Your task to perform on an android device: search for starred emails in the gmail app Image 0: 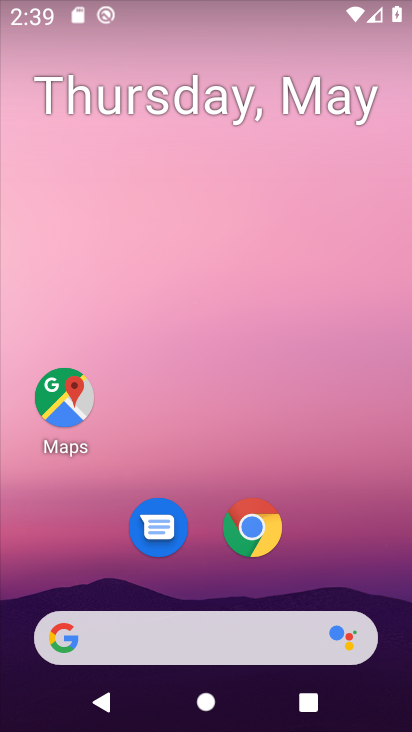
Step 0: drag from (337, 585) to (367, 110)
Your task to perform on an android device: search for starred emails in the gmail app Image 1: 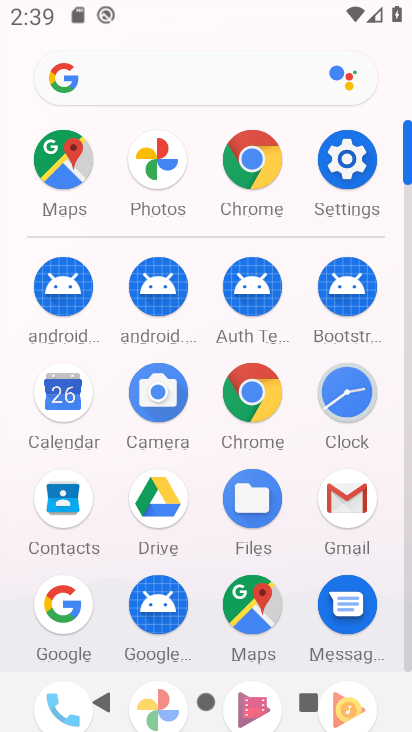
Step 1: click (346, 518)
Your task to perform on an android device: search for starred emails in the gmail app Image 2: 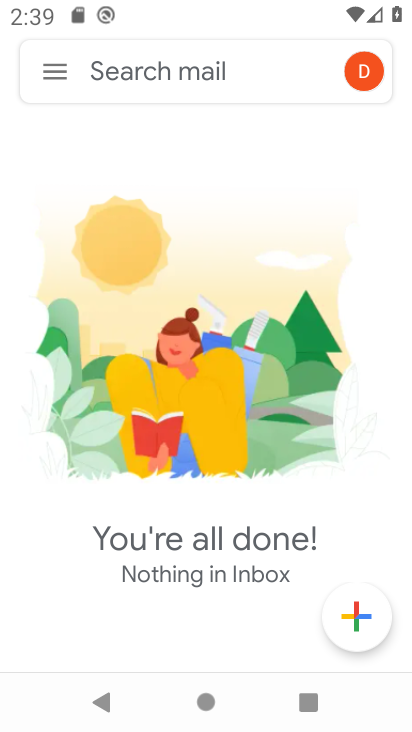
Step 2: click (38, 63)
Your task to perform on an android device: search for starred emails in the gmail app Image 3: 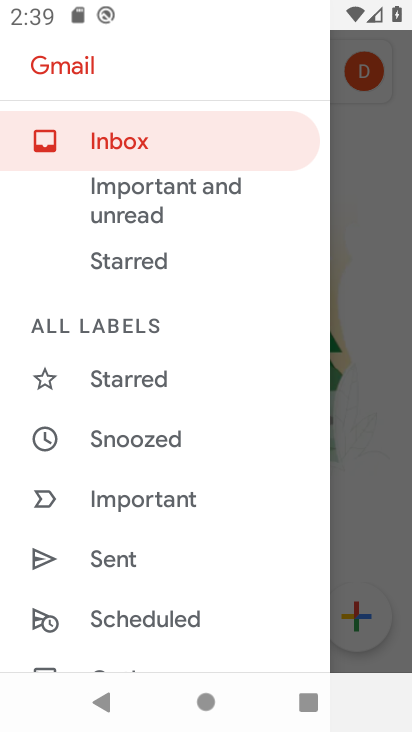
Step 3: click (51, 390)
Your task to perform on an android device: search for starred emails in the gmail app Image 4: 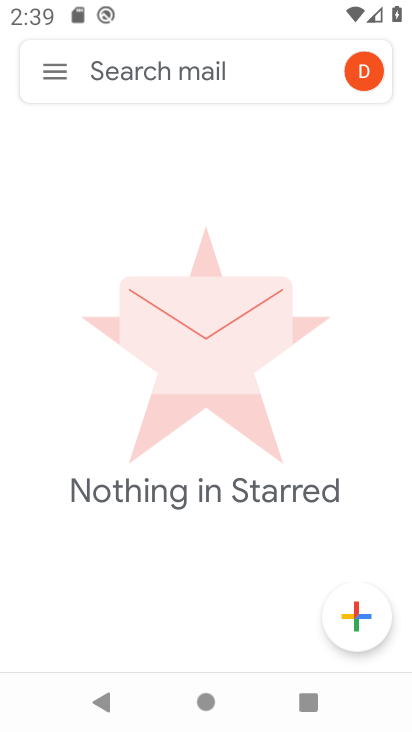
Step 4: task complete